Your task to perform on an android device: Go to display settings Image 0: 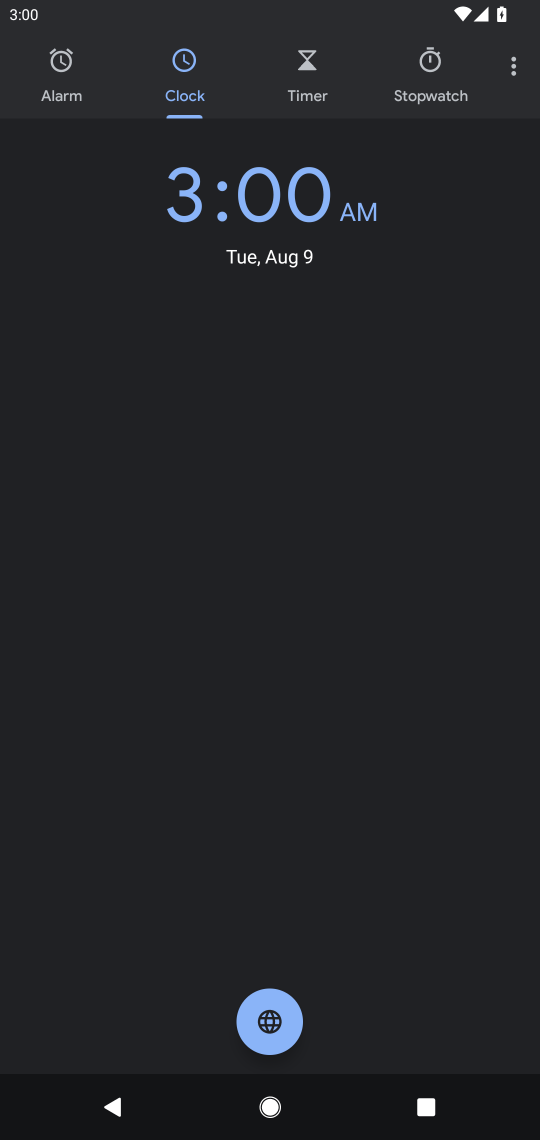
Step 0: press home button
Your task to perform on an android device: Go to display settings Image 1: 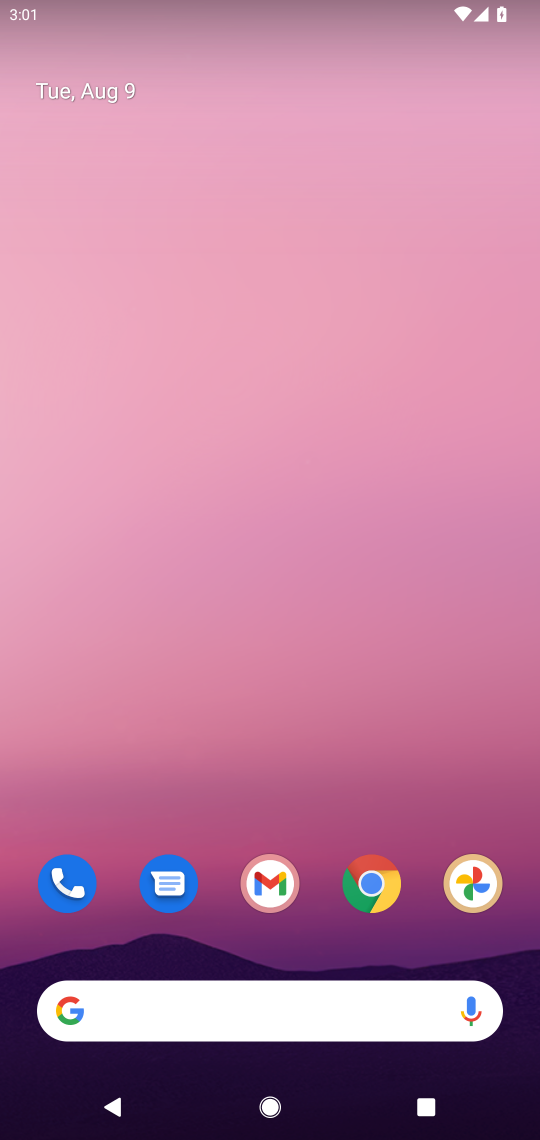
Step 1: drag from (428, 949) to (363, 76)
Your task to perform on an android device: Go to display settings Image 2: 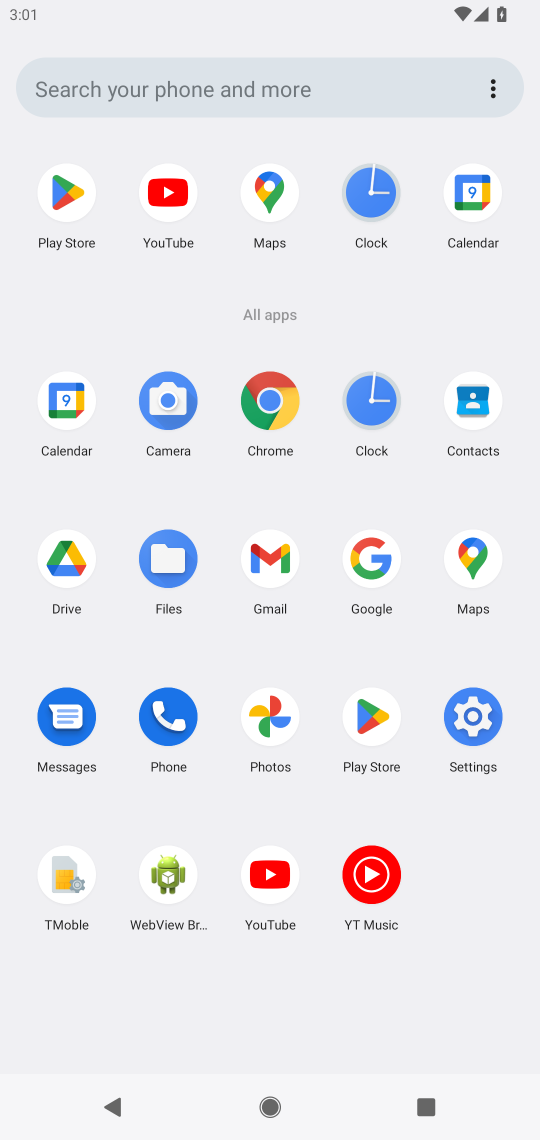
Step 2: click (471, 714)
Your task to perform on an android device: Go to display settings Image 3: 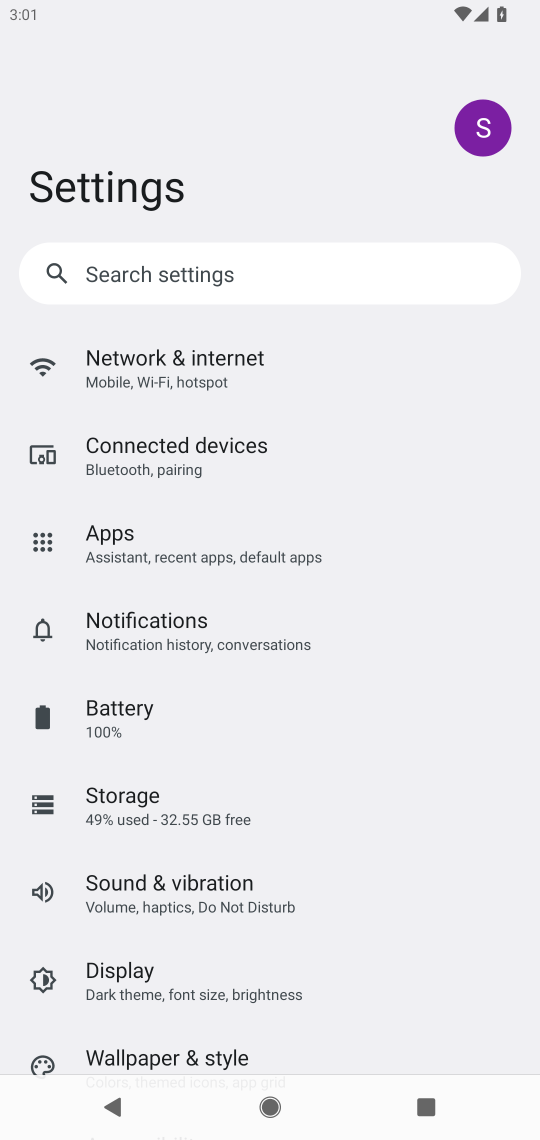
Step 3: click (152, 969)
Your task to perform on an android device: Go to display settings Image 4: 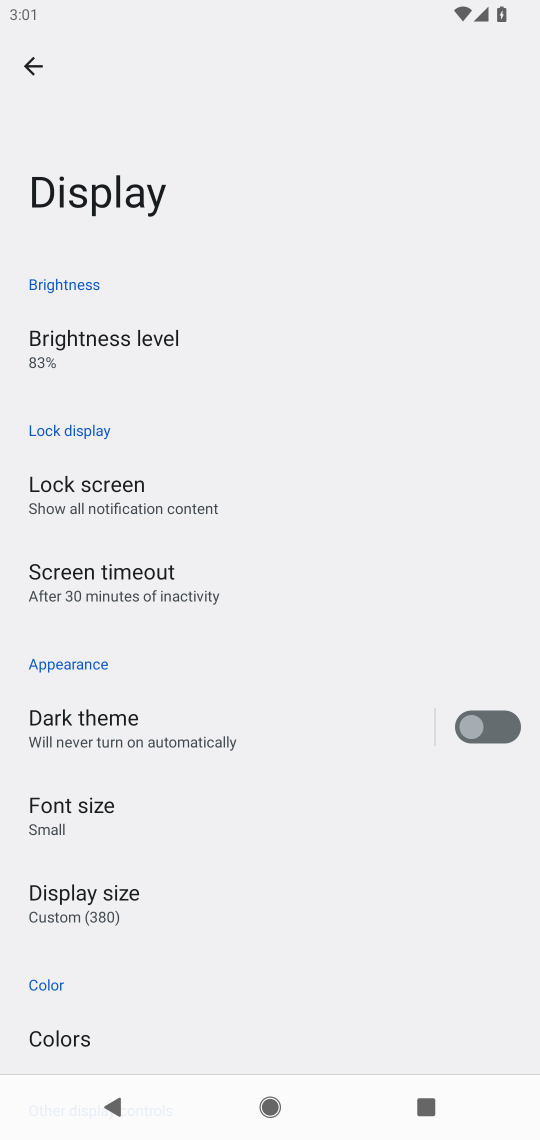
Step 4: task complete